Your task to perform on an android device: Open the map Image 0: 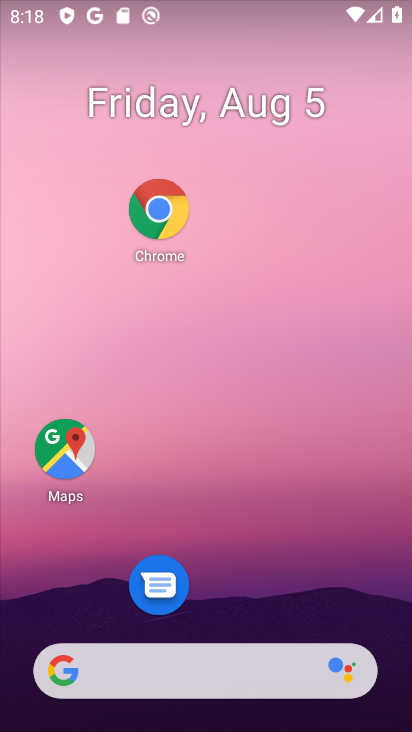
Step 0: click (57, 455)
Your task to perform on an android device: Open the map Image 1: 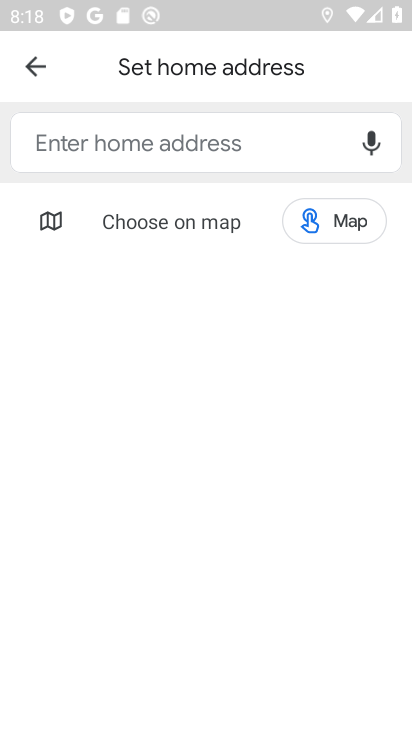
Step 1: click (141, 214)
Your task to perform on an android device: Open the map Image 2: 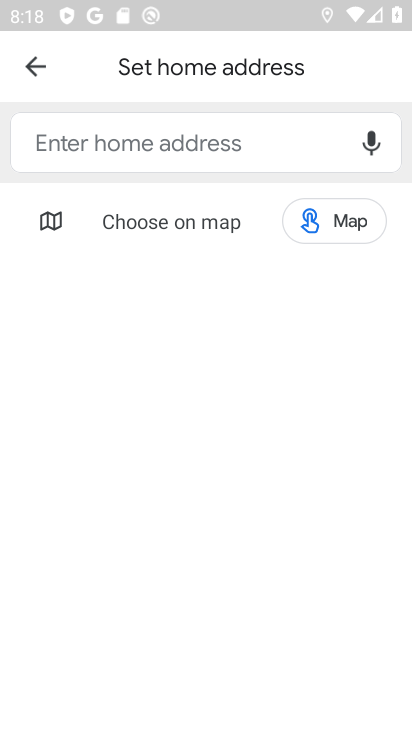
Step 2: click (19, 64)
Your task to perform on an android device: Open the map Image 3: 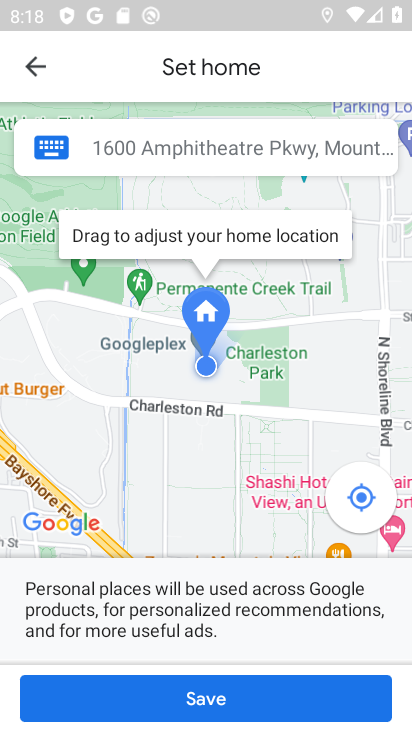
Step 3: task complete